Your task to perform on an android device: What's the weather? Image 0: 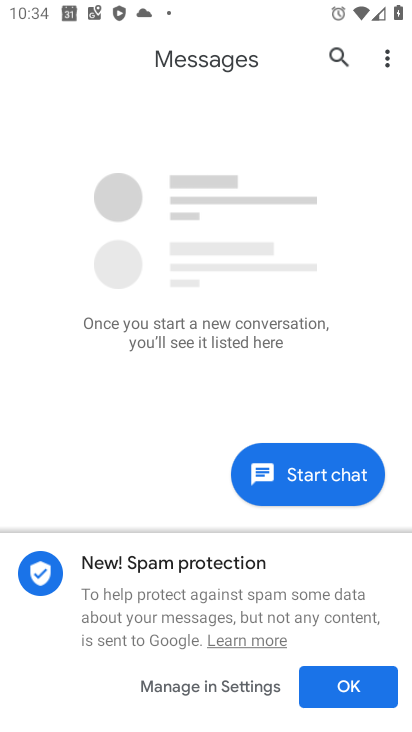
Step 0: press home button
Your task to perform on an android device: What's the weather? Image 1: 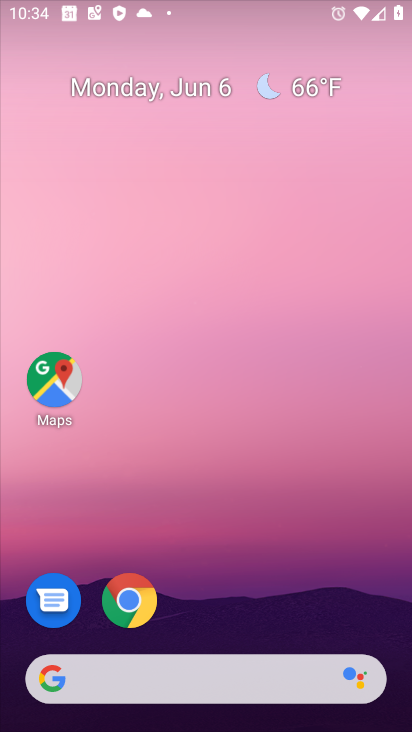
Step 1: click (186, 672)
Your task to perform on an android device: What's the weather? Image 2: 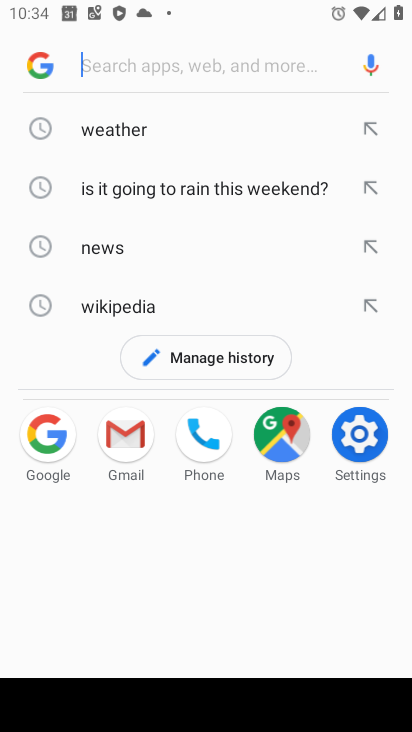
Step 2: click (142, 141)
Your task to perform on an android device: What's the weather? Image 3: 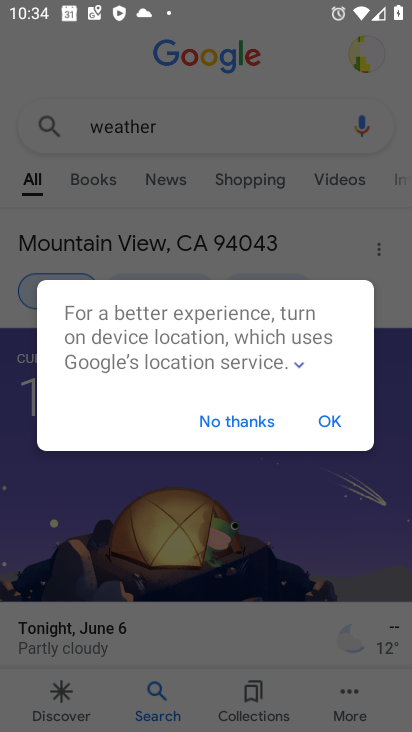
Step 3: click (204, 425)
Your task to perform on an android device: What's the weather? Image 4: 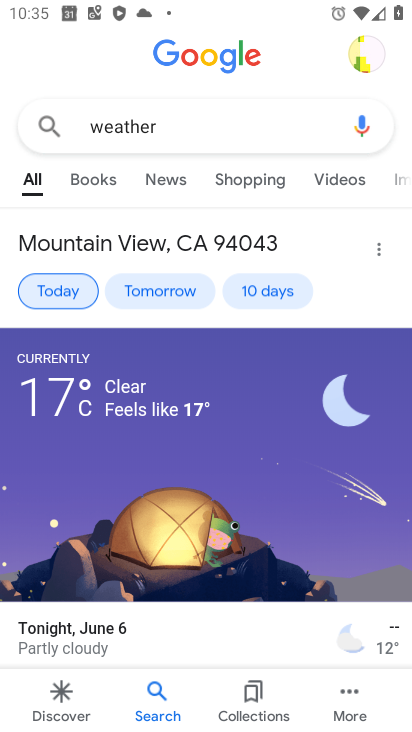
Step 4: task complete